Your task to perform on an android device: delete the emails in spam in the gmail app Image 0: 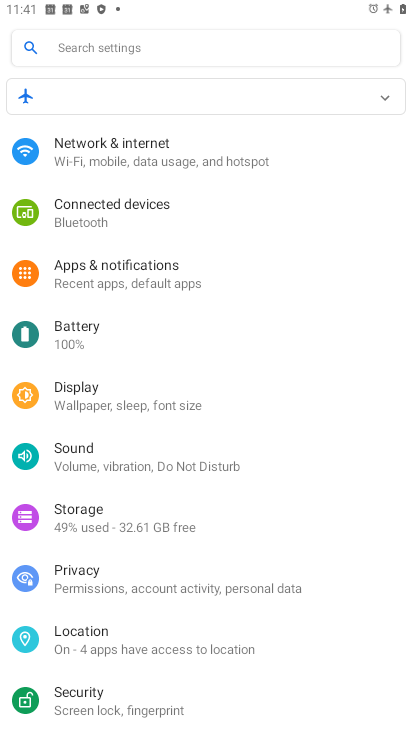
Step 0: press home button
Your task to perform on an android device: delete the emails in spam in the gmail app Image 1: 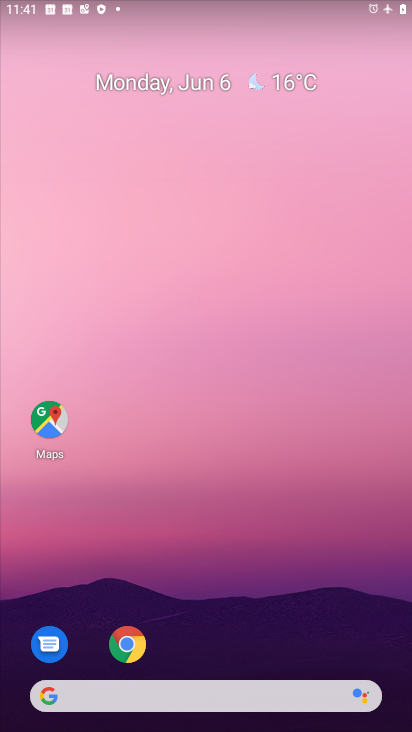
Step 1: drag from (277, 601) to (302, 103)
Your task to perform on an android device: delete the emails in spam in the gmail app Image 2: 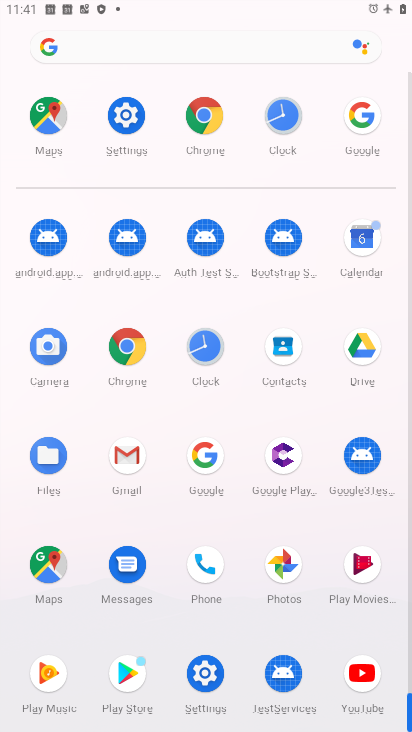
Step 2: click (135, 463)
Your task to perform on an android device: delete the emails in spam in the gmail app Image 3: 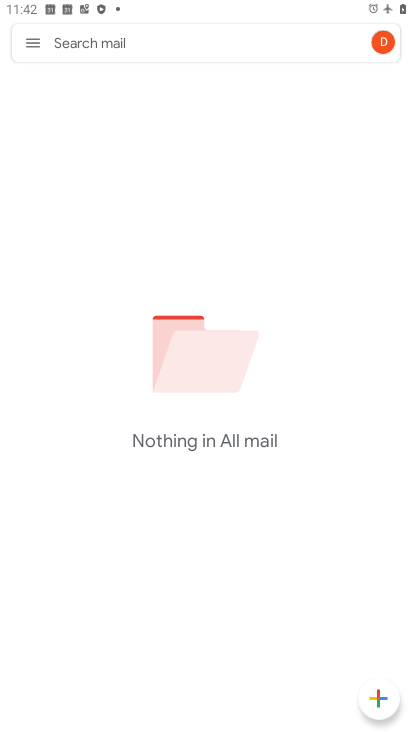
Step 3: click (42, 43)
Your task to perform on an android device: delete the emails in spam in the gmail app Image 4: 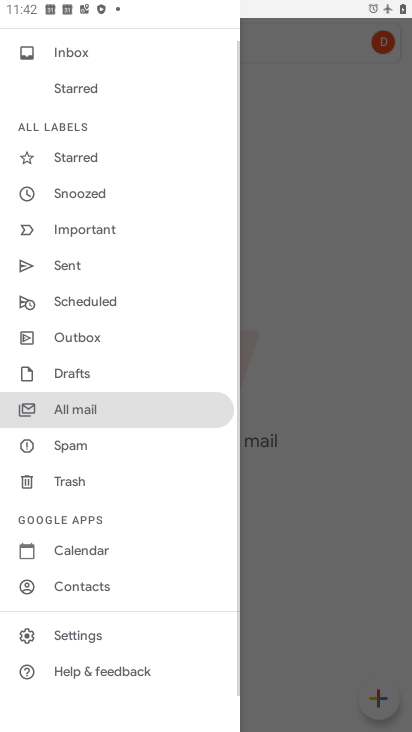
Step 4: click (89, 453)
Your task to perform on an android device: delete the emails in spam in the gmail app Image 5: 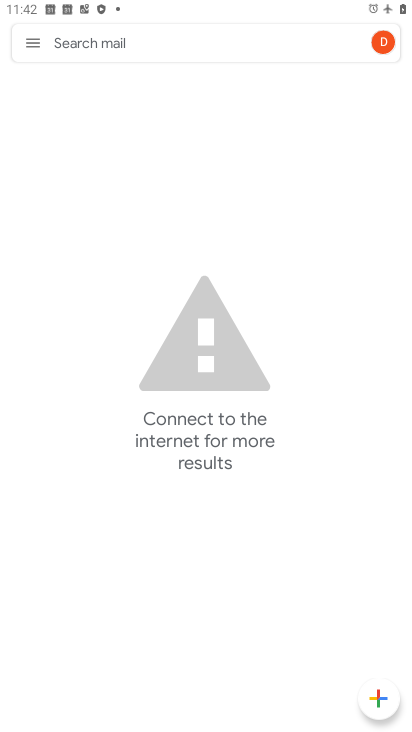
Step 5: task complete